Your task to perform on an android device: turn on location history Image 0: 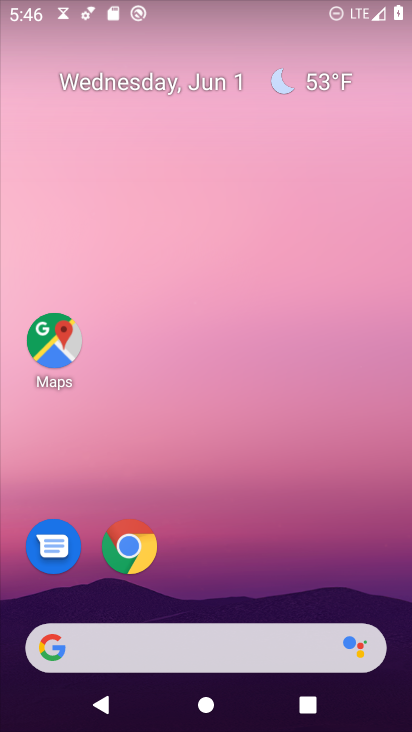
Step 0: drag from (231, 545) to (167, 1)
Your task to perform on an android device: turn on location history Image 1: 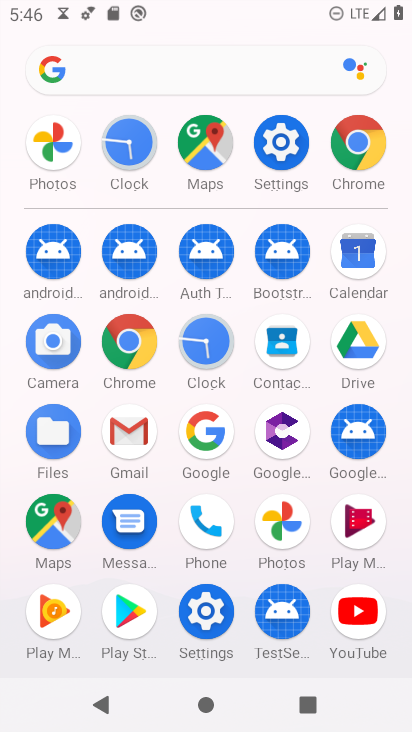
Step 1: drag from (7, 571) to (43, 163)
Your task to perform on an android device: turn on location history Image 2: 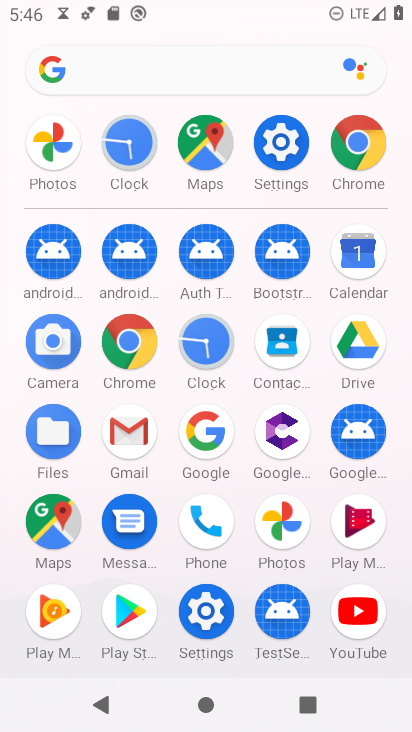
Step 2: click (201, 611)
Your task to perform on an android device: turn on location history Image 3: 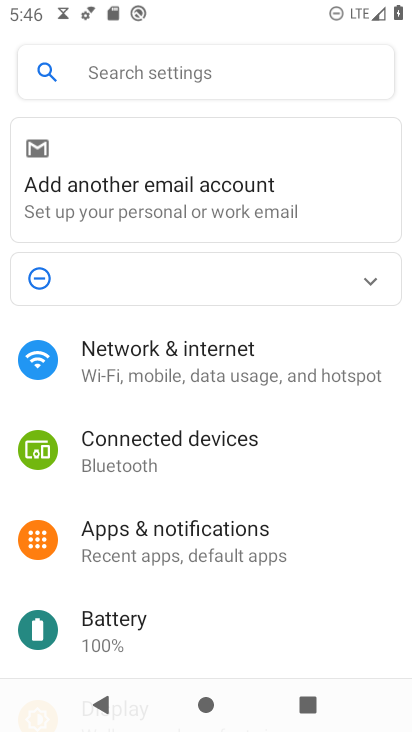
Step 3: drag from (268, 626) to (274, 211)
Your task to perform on an android device: turn on location history Image 4: 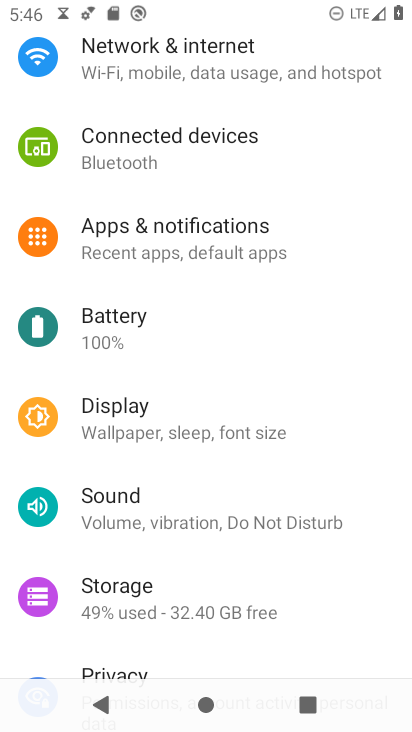
Step 4: drag from (216, 559) to (270, 199)
Your task to perform on an android device: turn on location history Image 5: 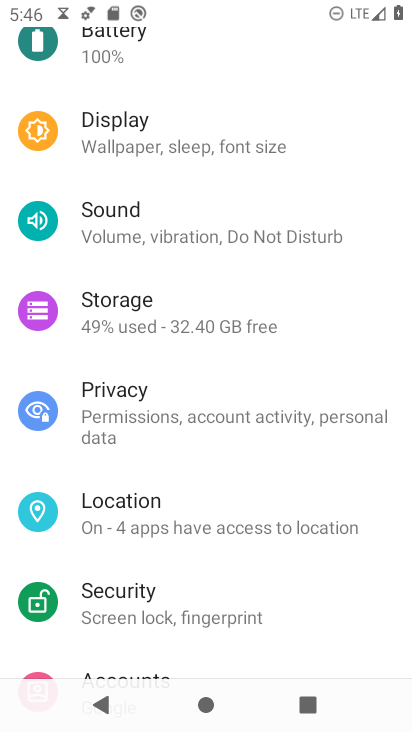
Step 5: click (156, 507)
Your task to perform on an android device: turn on location history Image 6: 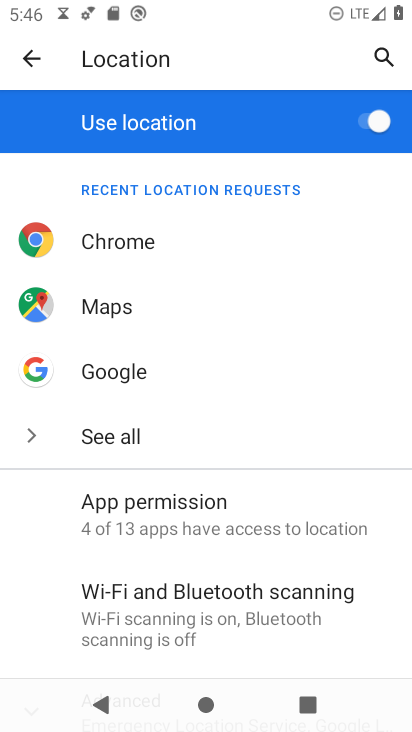
Step 6: drag from (273, 612) to (298, 222)
Your task to perform on an android device: turn on location history Image 7: 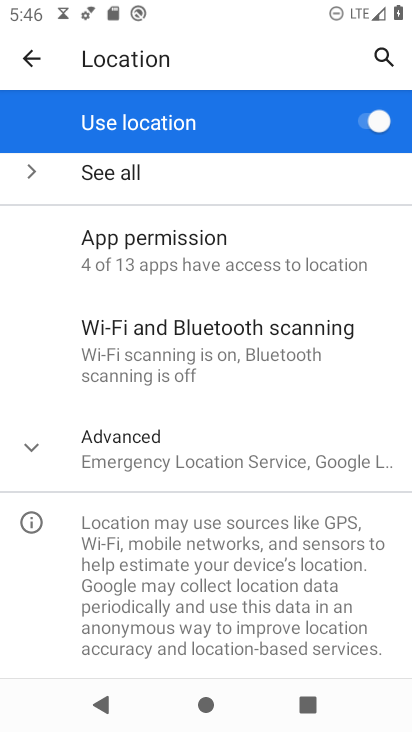
Step 7: click (52, 438)
Your task to perform on an android device: turn on location history Image 8: 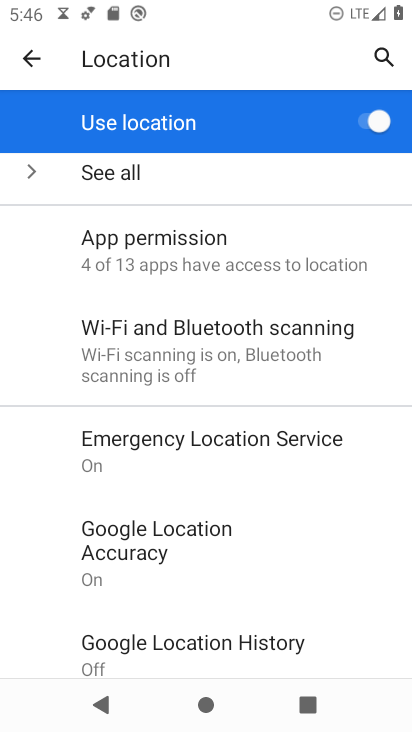
Step 8: drag from (271, 620) to (293, 270)
Your task to perform on an android device: turn on location history Image 9: 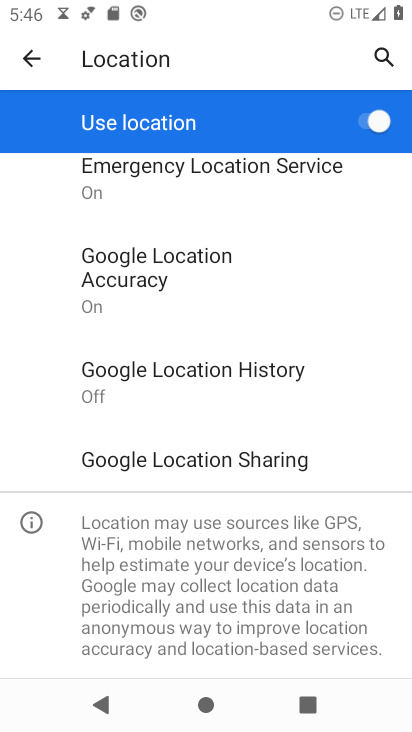
Step 9: click (196, 356)
Your task to perform on an android device: turn on location history Image 10: 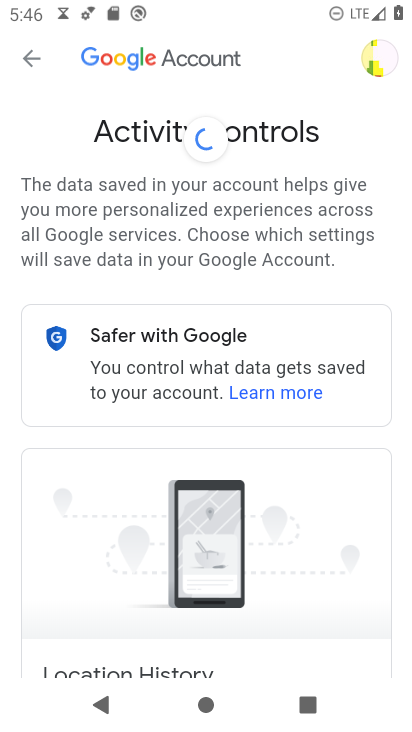
Step 10: drag from (288, 494) to (297, 86)
Your task to perform on an android device: turn on location history Image 11: 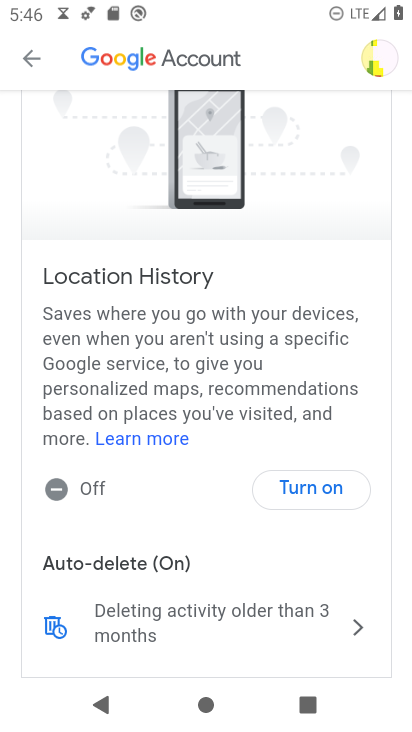
Step 11: click (308, 494)
Your task to perform on an android device: turn on location history Image 12: 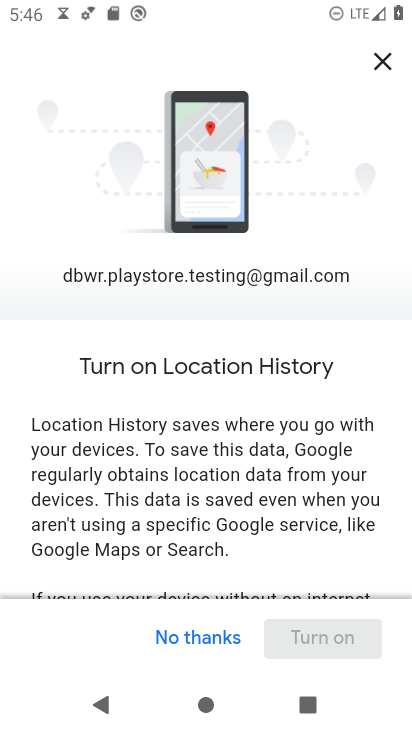
Step 12: drag from (278, 513) to (273, 109)
Your task to perform on an android device: turn on location history Image 13: 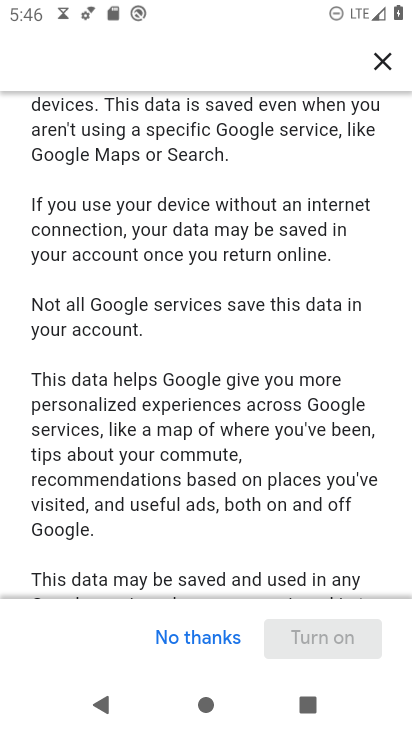
Step 13: drag from (222, 530) to (222, 116)
Your task to perform on an android device: turn on location history Image 14: 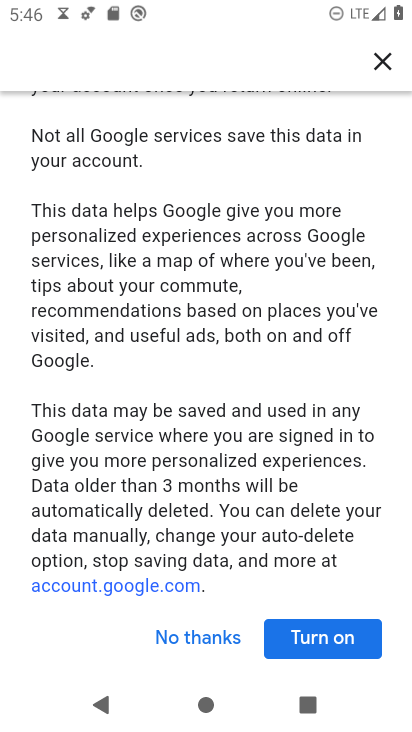
Step 14: click (296, 631)
Your task to perform on an android device: turn on location history Image 15: 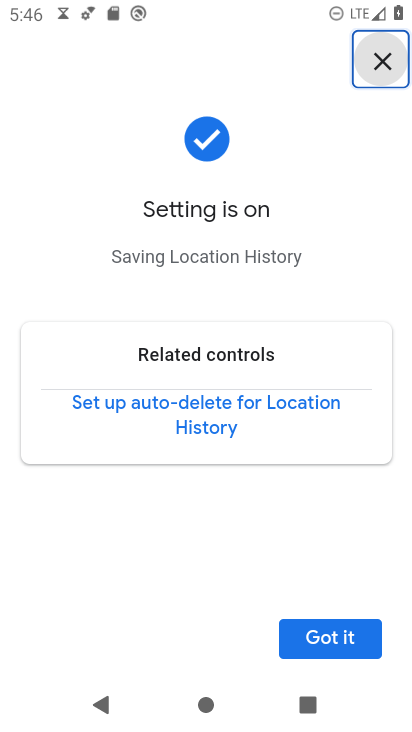
Step 15: task complete